Your task to perform on an android device: check google app version Image 0: 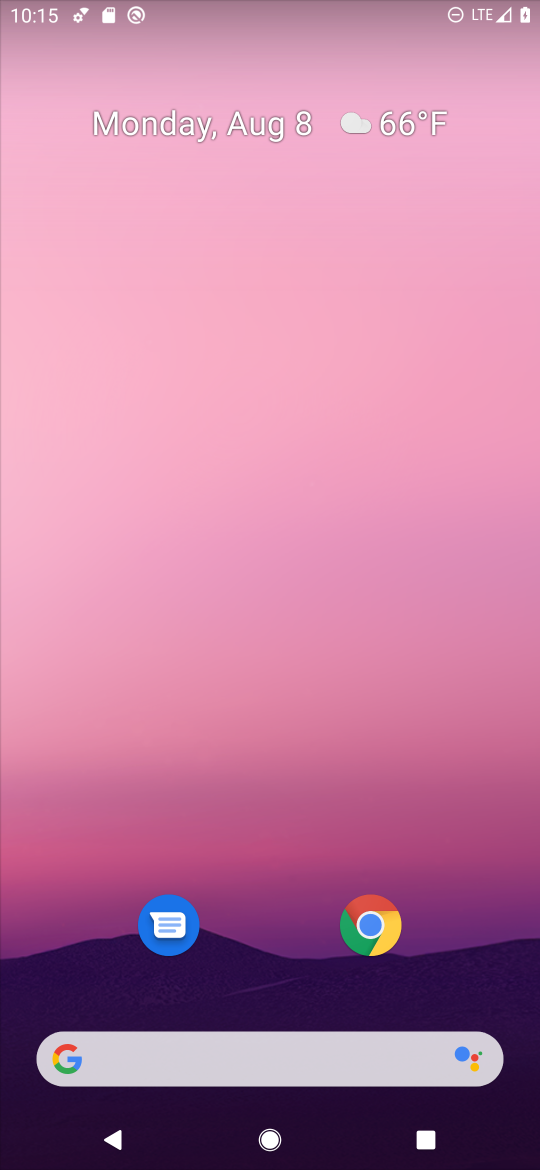
Step 0: drag from (258, 672) to (271, 106)
Your task to perform on an android device: check google app version Image 1: 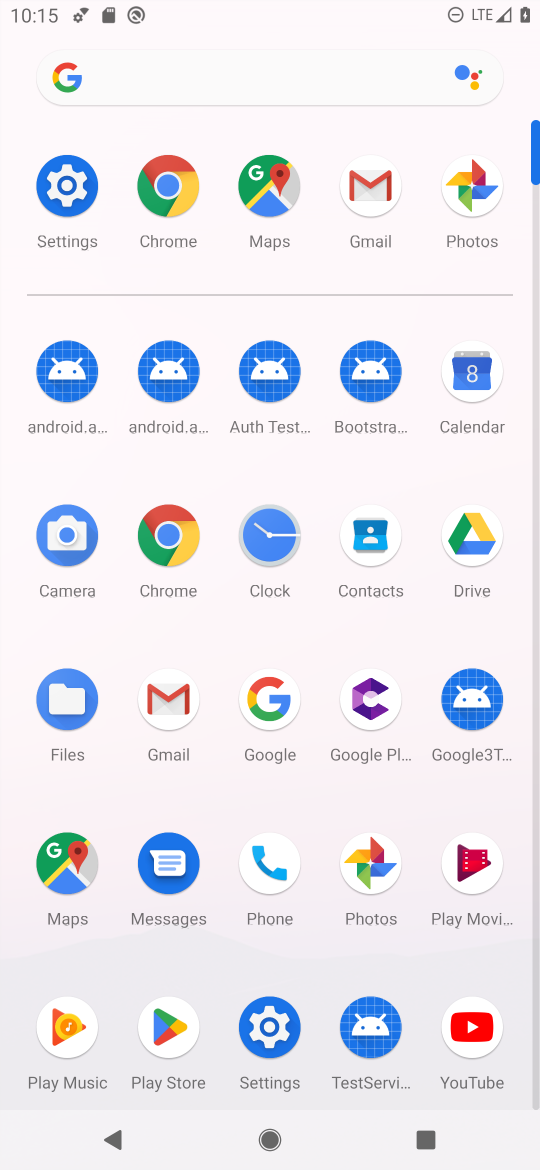
Step 1: click (265, 711)
Your task to perform on an android device: check google app version Image 2: 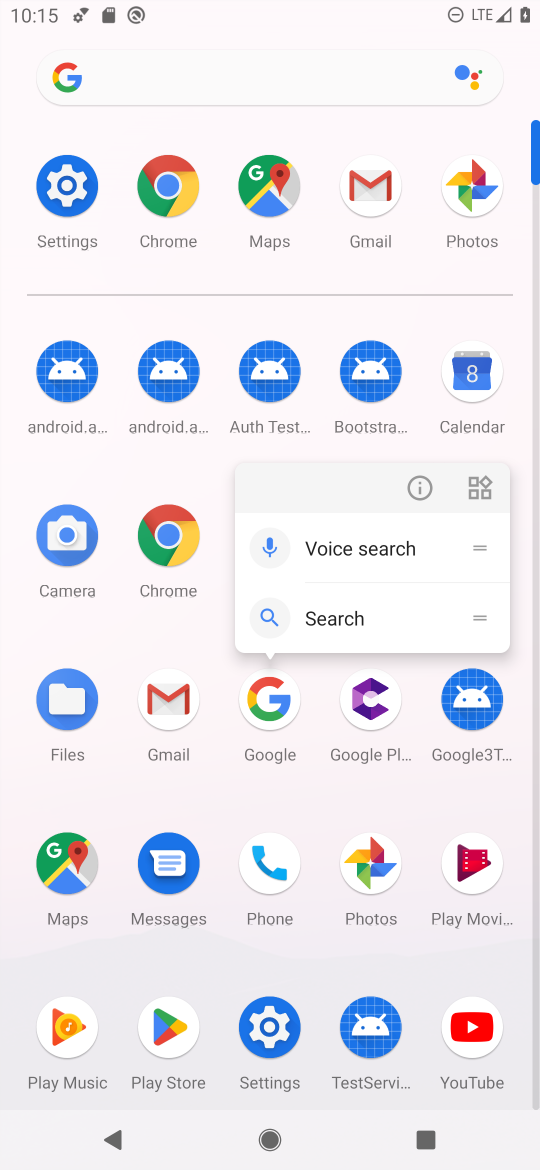
Step 2: click (412, 490)
Your task to perform on an android device: check google app version Image 3: 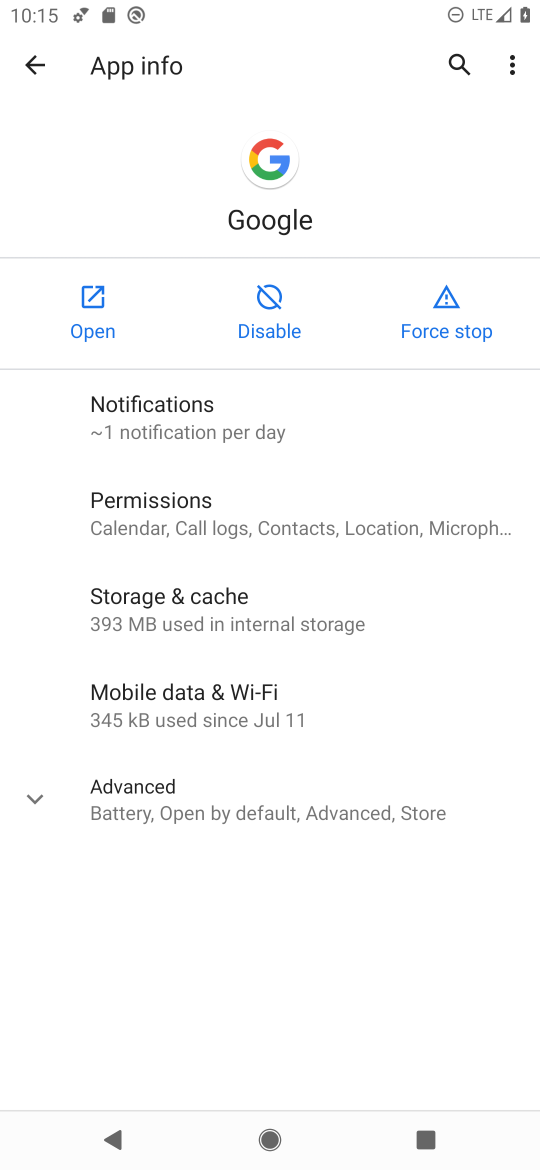
Step 3: click (355, 796)
Your task to perform on an android device: check google app version Image 4: 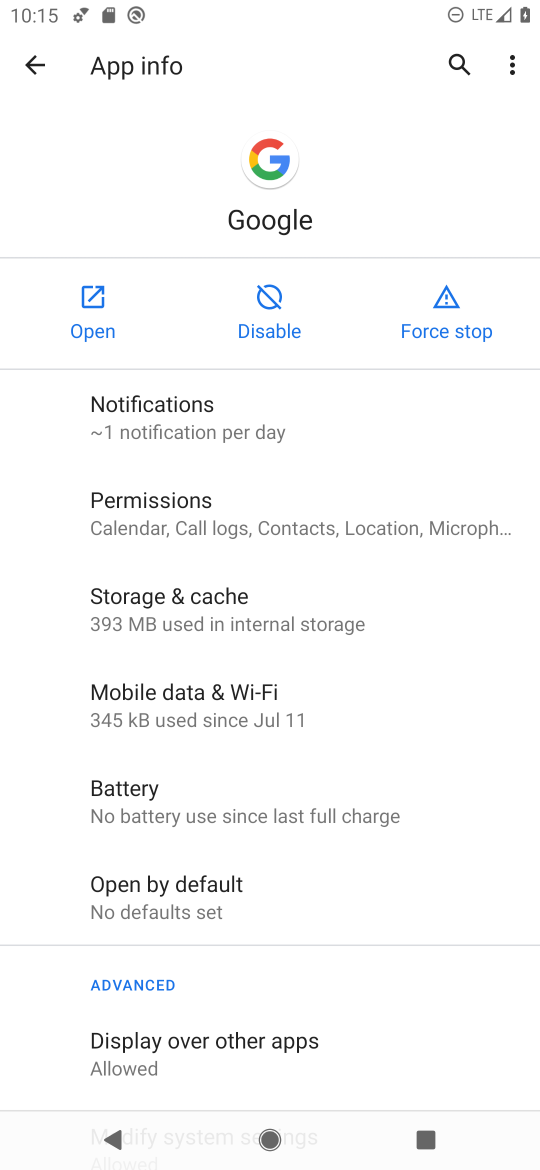
Step 4: task complete